Your task to perform on an android device: turn notification dots on Image 0: 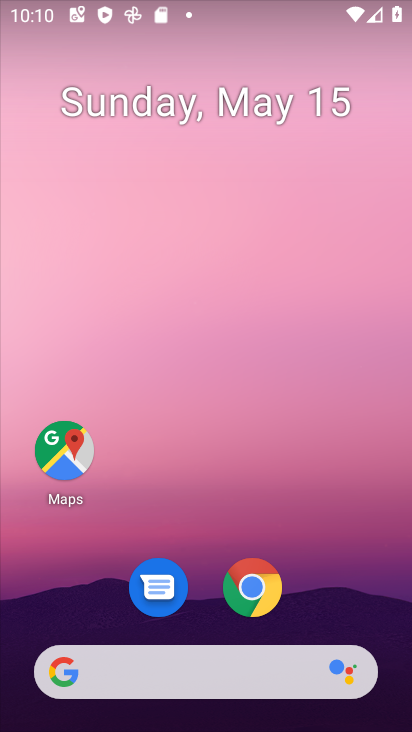
Step 0: drag from (395, 627) to (220, 119)
Your task to perform on an android device: turn notification dots on Image 1: 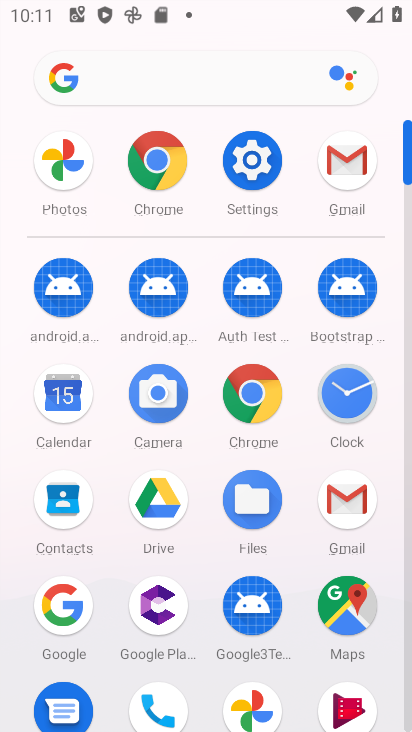
Step 1: drag from (307, 151) to (341, 155)
Your task to perform on an android device: turn notification dots on Image 2: 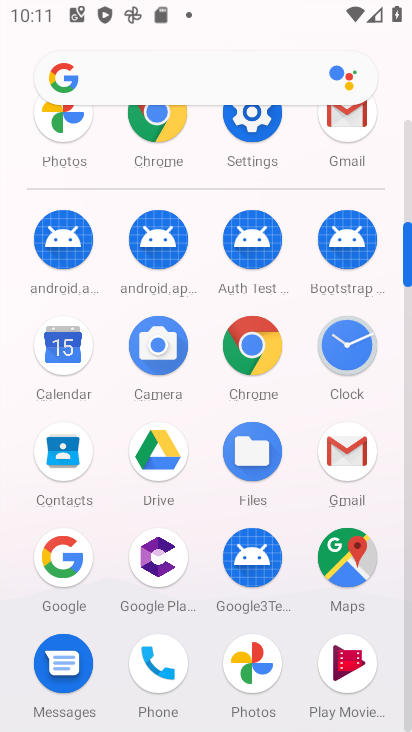
Step 2: click (260, 125)
Your task to perform on an android device: turn notification dots on Image 3: 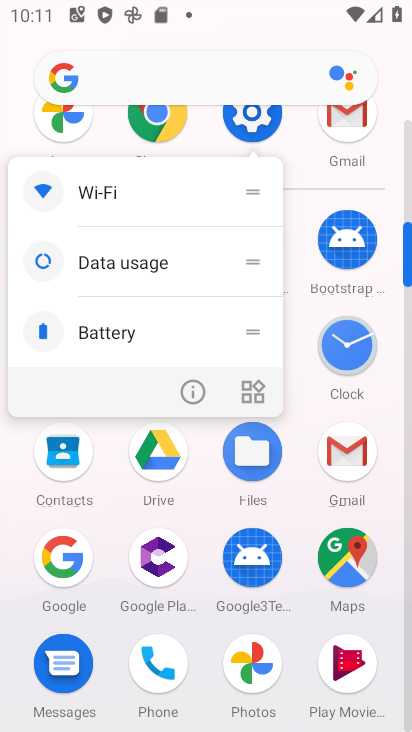
Step 3: click (260, 125)
Your task to perform on an android device: turn notification dots on Image 4: 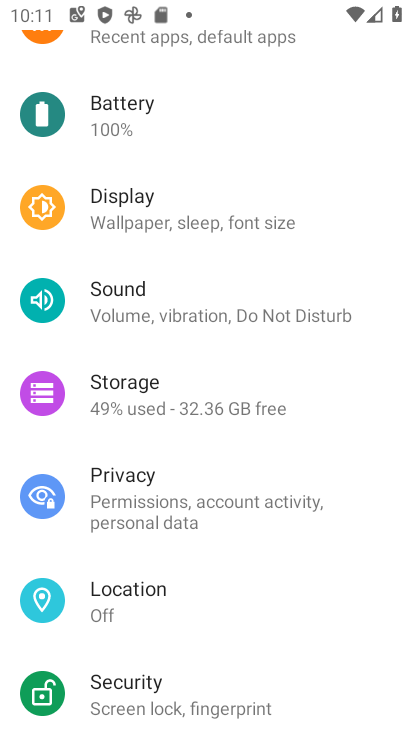
Step 4: drag from (225, 147) to (232, 515)
Your task to perform on an android device: turn notification dots on Image 5: 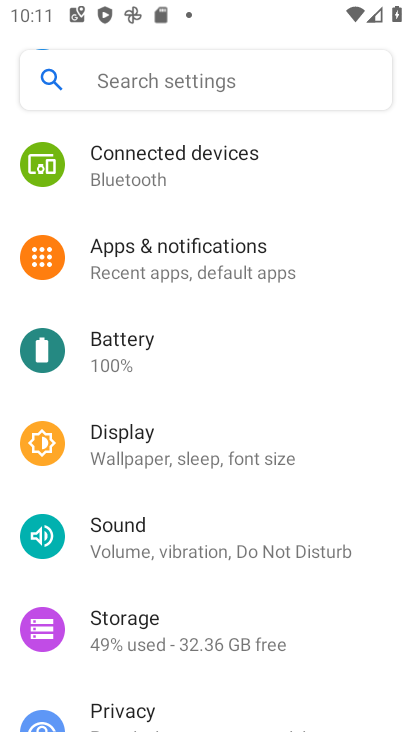
Step 5: click (195, 287)
Your task to perform on an android device: turn notification dots on Image 6: 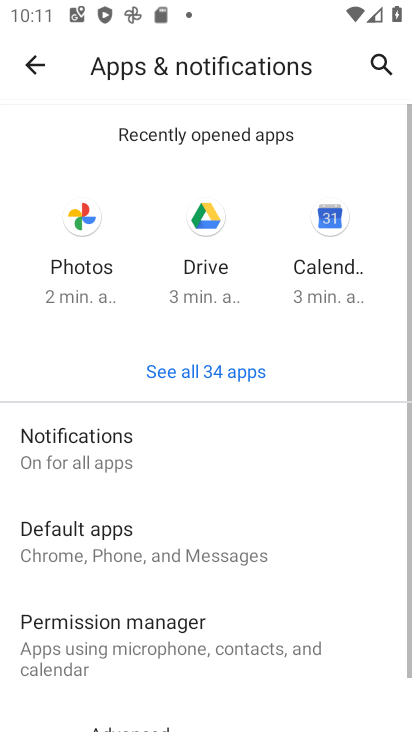
Step 6: click (95, 444)
Your task to perform on an android device: turn notification dots on Image 7: 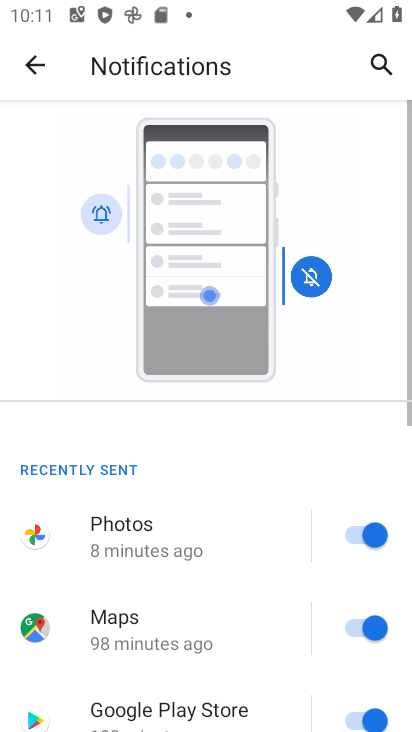
Step 7: drag from (171, 618) to (167, 66)
Your task to perform on an android device: turn notification dots on Image 8: 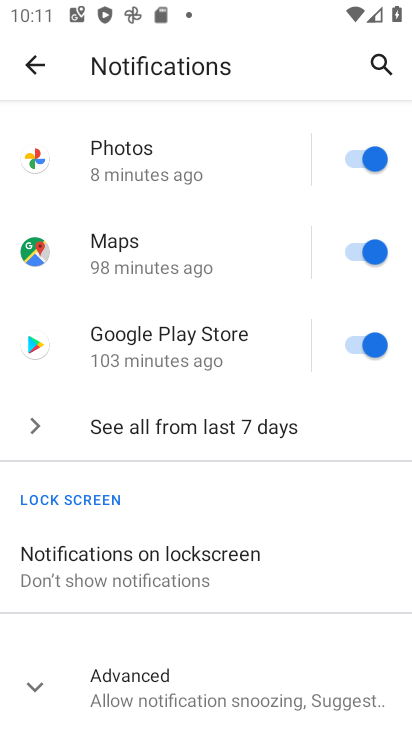
Step 8: click (41, 688)
Your task to perform on an android device: turn notification dots on Image 9: 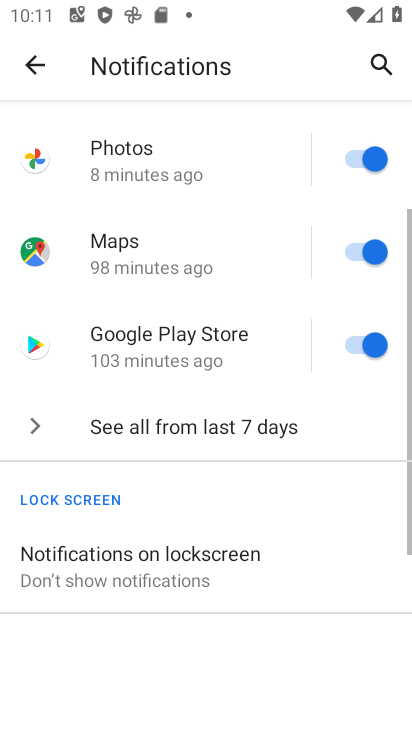
Step 9: task complete